Your task to perform on an android device: change your default location settings in chrome Image 0: 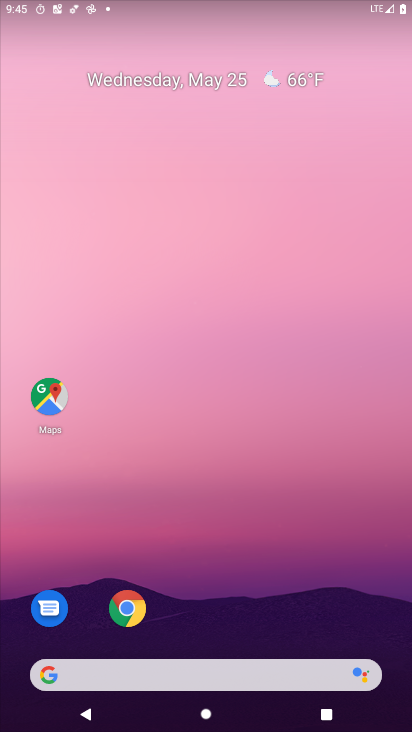
Step 0: click (129, 609)
Your task to perform on an android device: change your default location settings in chrome Image 1: 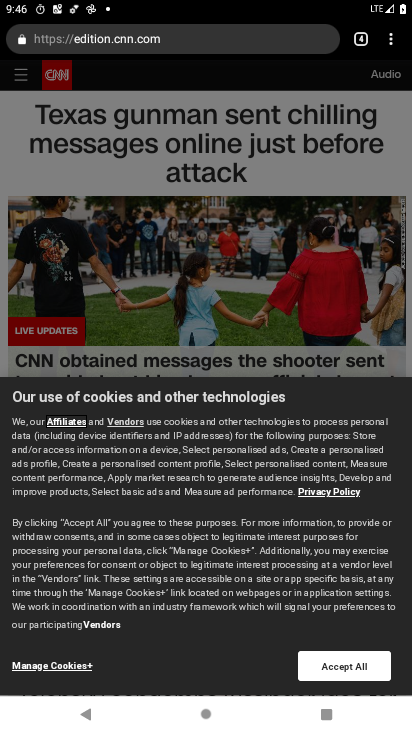
Step 1: click (391, 44)
Your task to perform on an android device: change your default location settings in chrome Image 2: 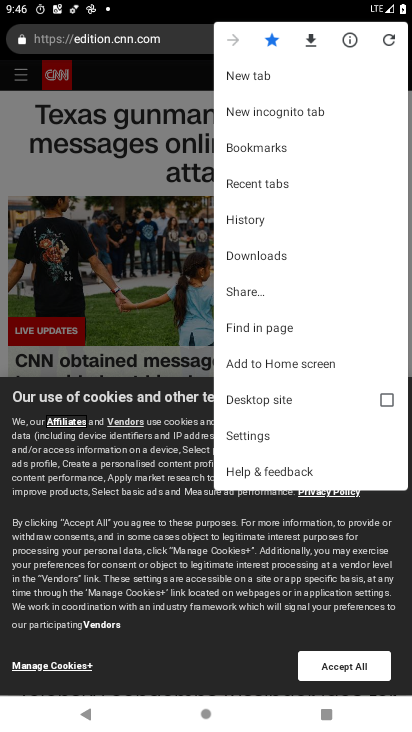
Step 2: click (253, 437)
Your task to perform on an android device: change your default location settings in chrome Image 3: 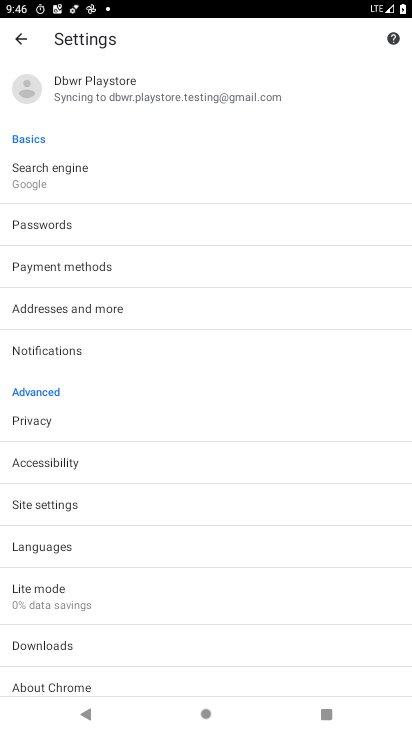
Step 3: click (40, 502)
Your task to perform on an android device: change your default location settings in chrome Image 4: 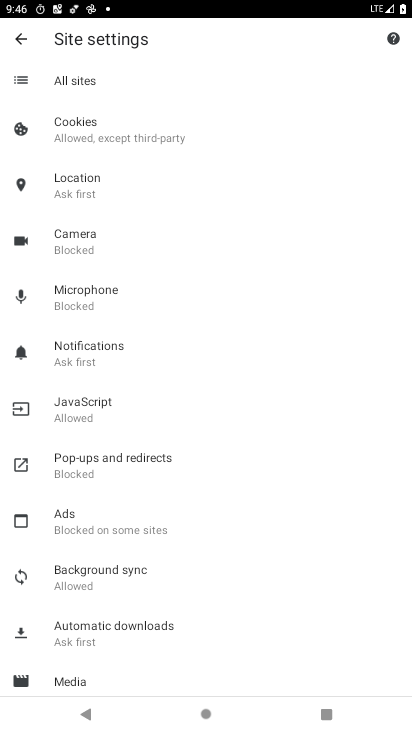
Step 4: click (76, 179)
Your task to perform on an android device: change your default location settings in chrome Image 5: 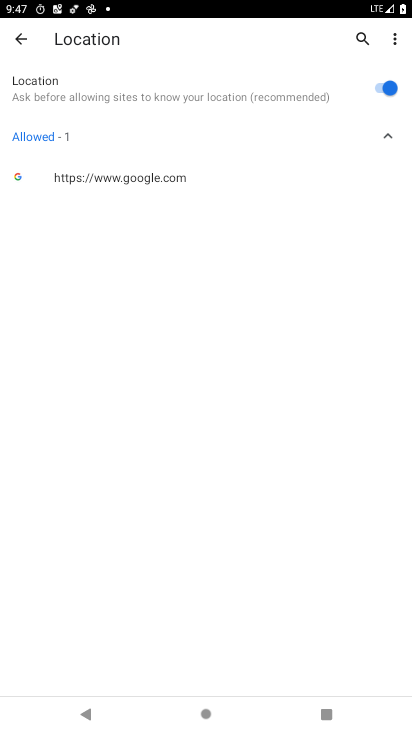
Step 5: click (380, 89)
Your task to perform on an android device: change your default location settings in chrome Image 6: 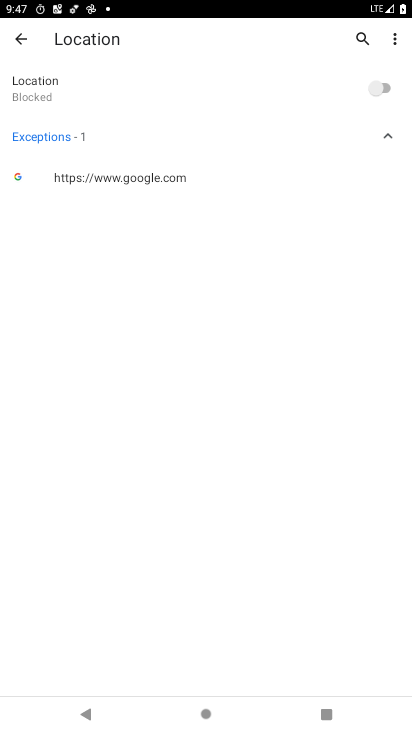
Step 6: task complete